Your task to perform on an android device: allow cookies in the chrome app Image 0: 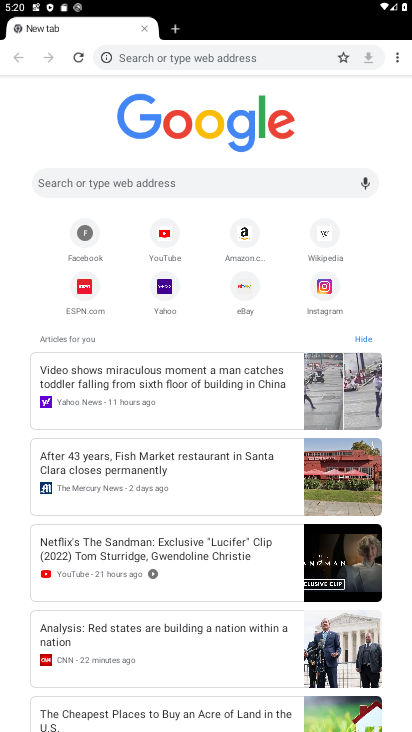
Step 0: task complete